Your task to perform on an android device: open a bookmark in the chrome app Image 0: 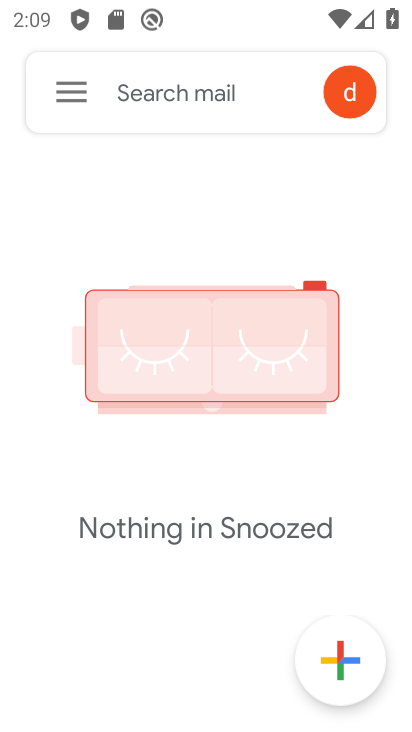
Step 0: press home button
Your task to perform on an android device: open a bookmark in the chrome app Image 1: 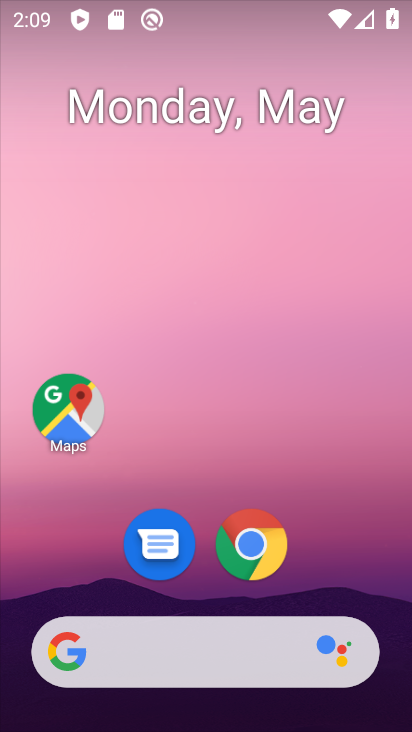
Step 1: click (237, 542)
Your task to perform on an android device: open a bookmark in the chrome app Image 2: 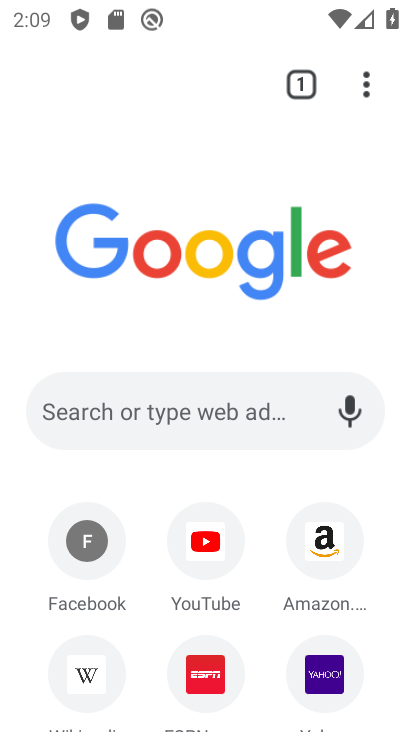
Step 2: task complete